Your task to perform on an android device: Open Google Maps Image 0: 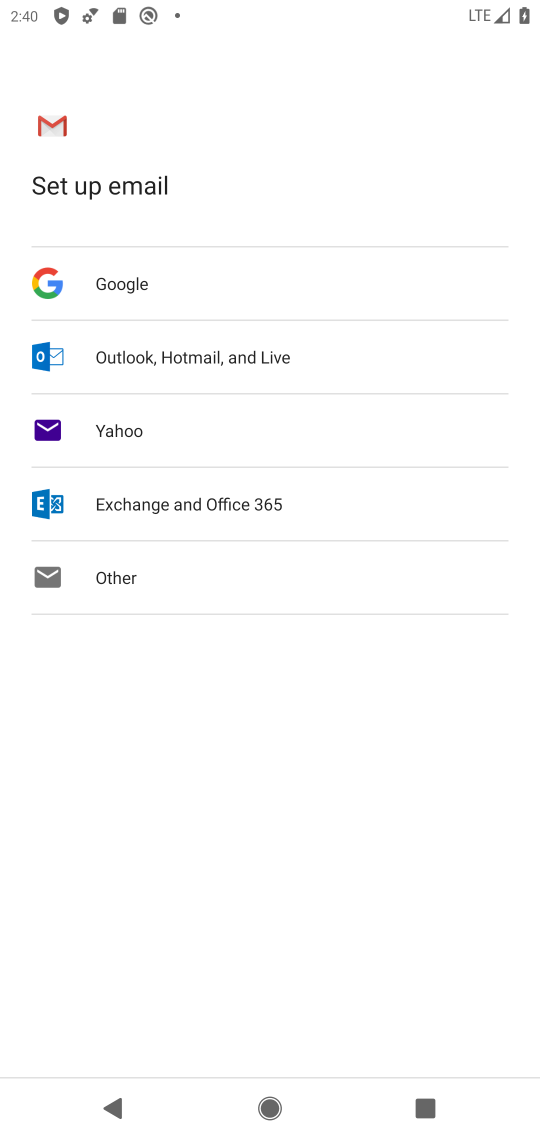
Step 0: press home button
Your task to perform on an android device: Open Google Maps Image 1: 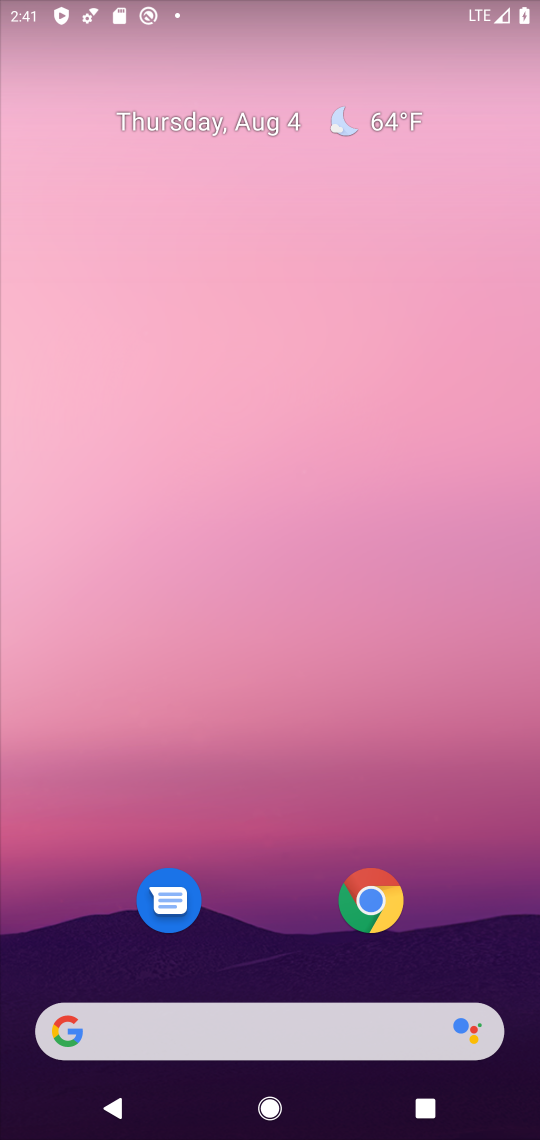
Step 1: drag from (504, 924) to (290, 17)
Your task to perform on an android device: Open Google Maps Image 2: 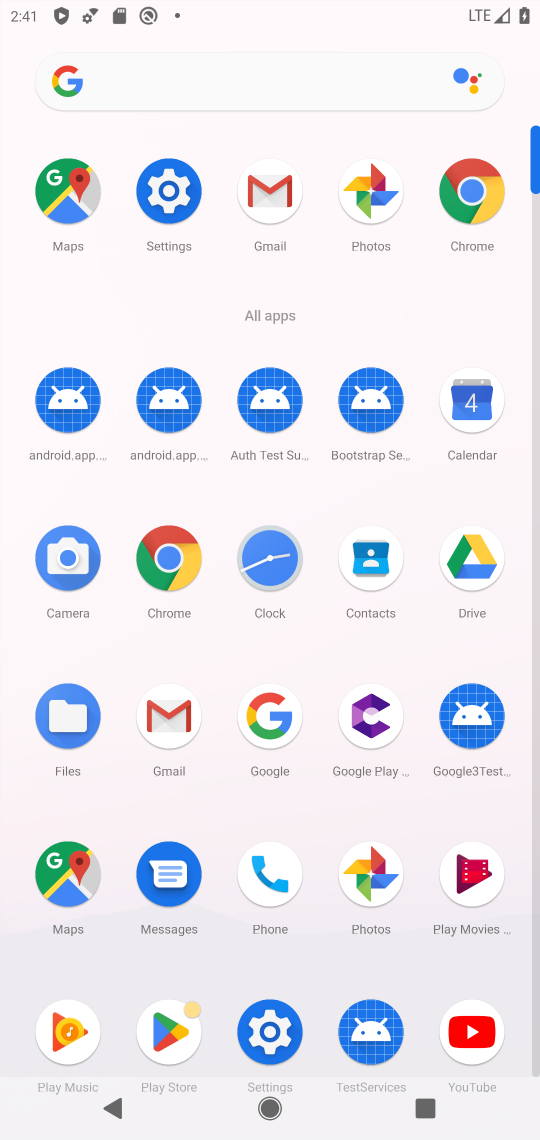
Step 2: click (65, 188)
Your task to perform on an android device: Open Google Maps Image 3: 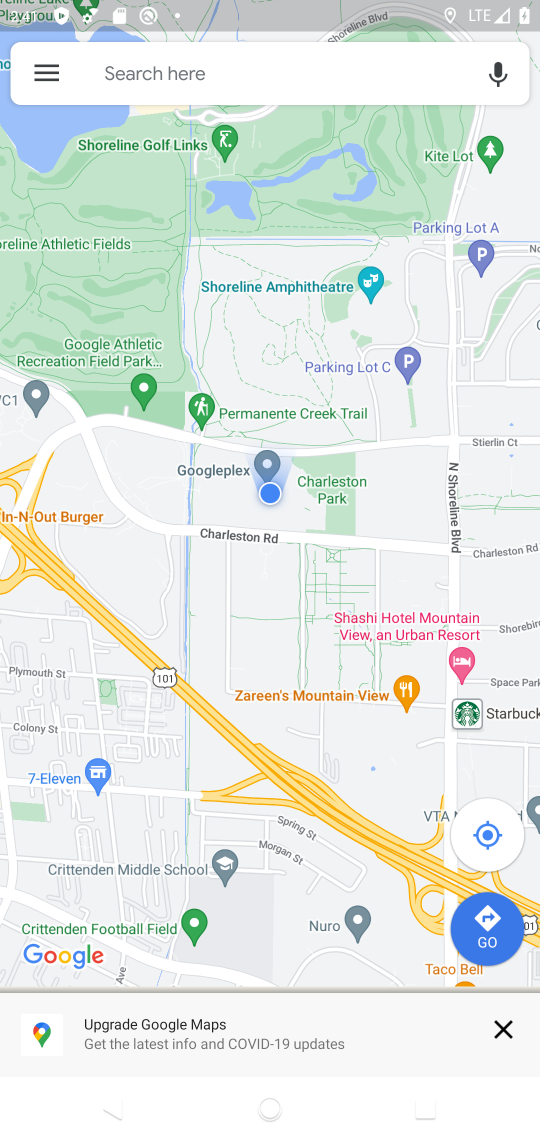
Step 3: task complete